Your task to perform on an android device: Open Youtube and go to "Your channel" Image 0: 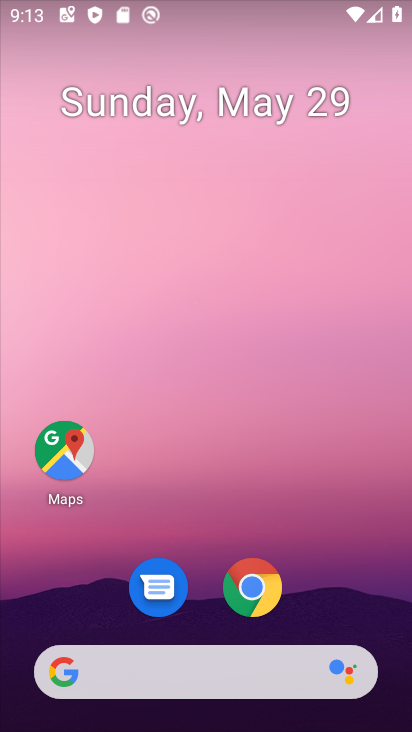
Step 0: drag from (233, 379) to (261, 23)
Your task to perform on an android device: Open Youtube and go to "Your channel" Image 1: 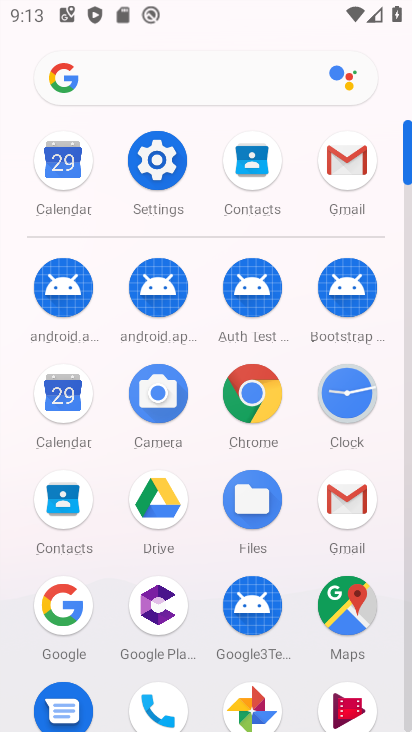
Step 1: drag from (187, 619) to (252, 105)
Your task to perform on an android device: Open Youtube and go to "Your channel" Image 2: 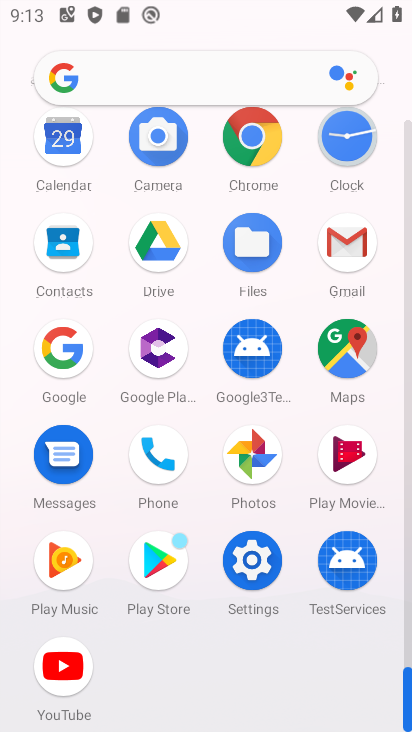
Step 2: click (54, 668)
Your task to perform on an android device: Open Youtube and go to "Your channel" Image 3: 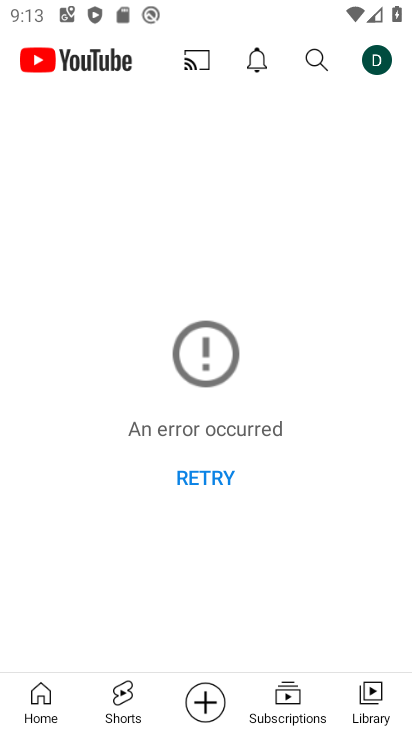
Step 3: click (371, 52)
Your task to perform on an android device: Open Youtube and go to "Your channel" Image 4: 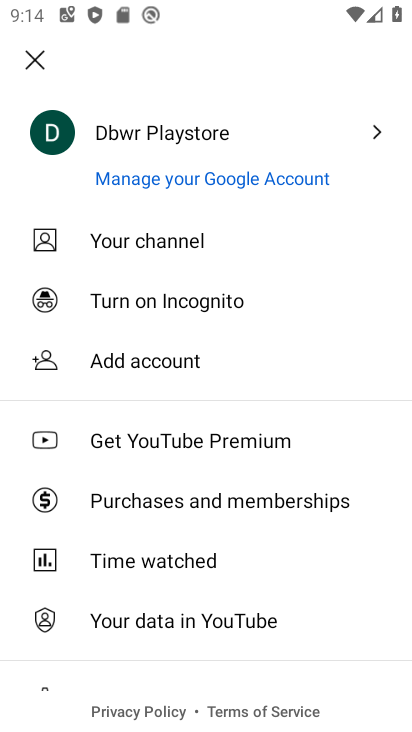
Step 4: click (164, 231)
Your task to perform on an android device: Open Youtube and go to "Your channel" Image 5: 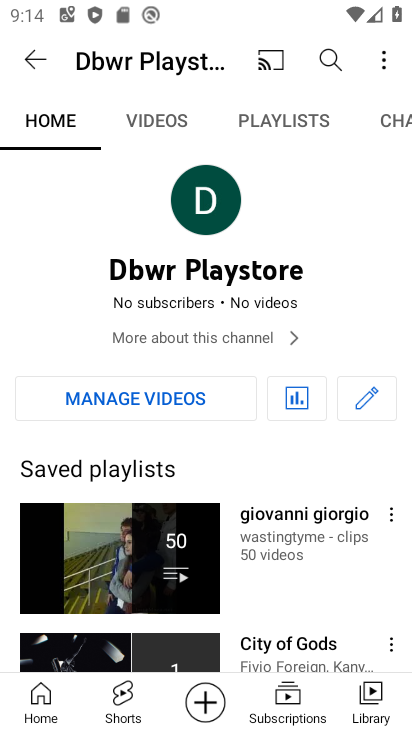
Step 5: task complete